Your task to perform on an android device: open sync settings in chrome Image 0: 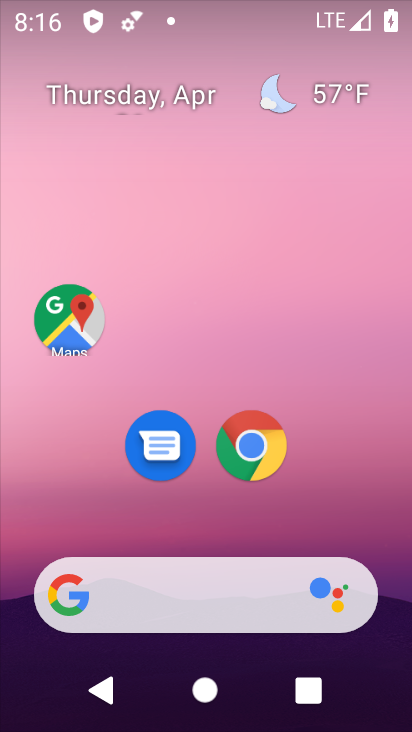
Step 0: click (252, 430)
Your task to perform on an android device: open sync settings in chrome Image 1: 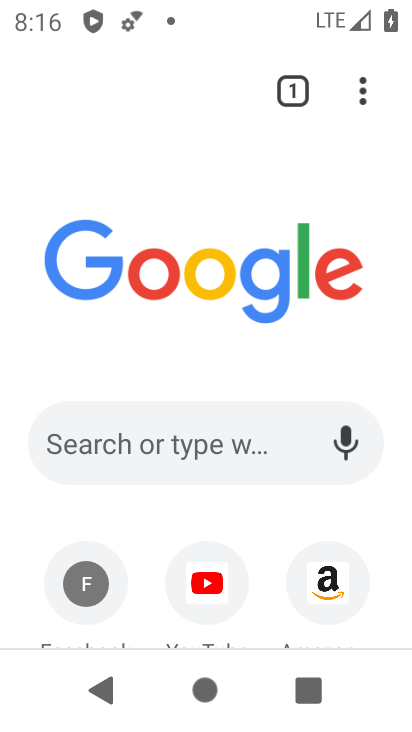
Step 1: click (367, 96)
Your task to perform on an android device: open sync settings in chrome Image 2: 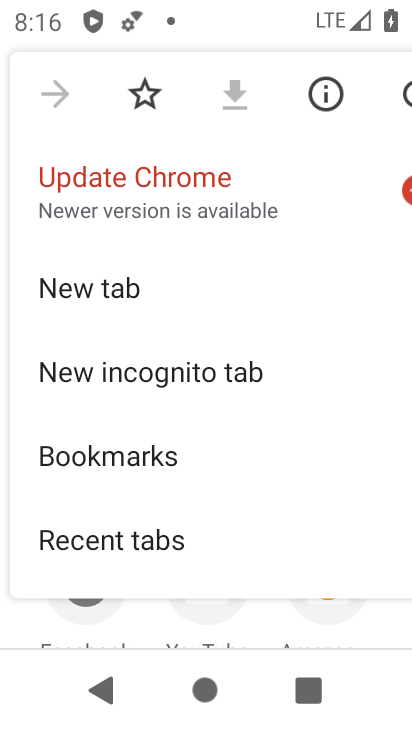
Step 2: drag from (256, 433) to (238, 46)
Your task to perform on an android device: open sync settings in chrome Image 3: 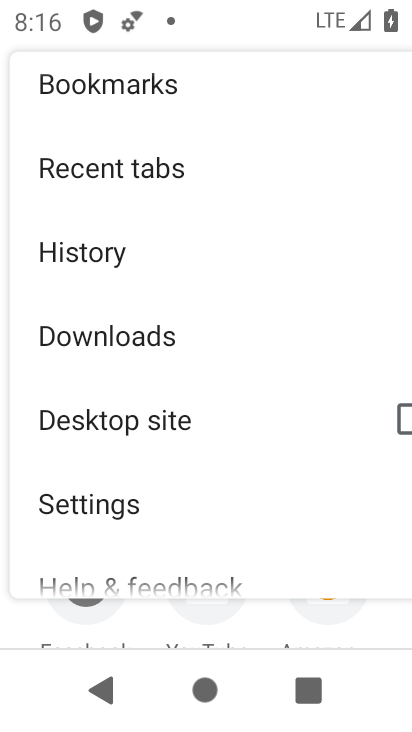
Step 3: click (94, 507)
Your task to perform on an android device: open sync settings in chrome Image 4: 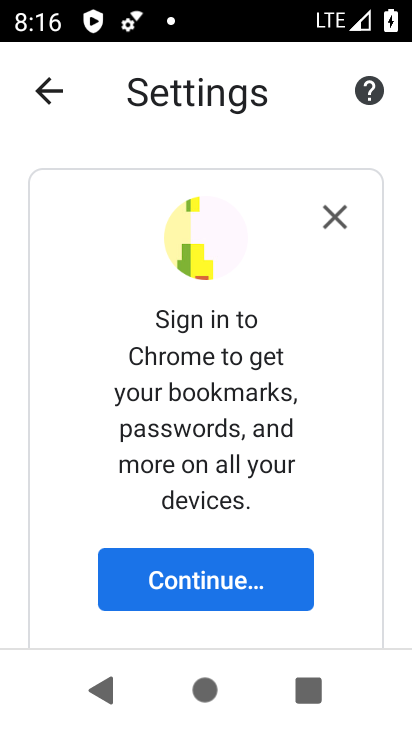
Step 4: drag from (220, 511) to (199, 192)
Your task to perform on an android device: open sync settings in chrome Image 5: 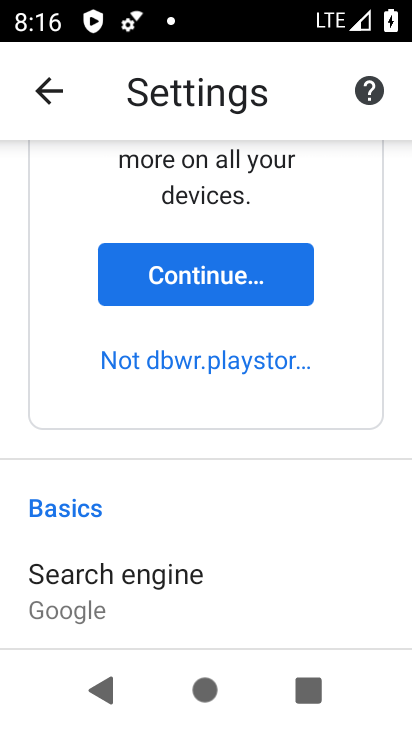
Step 5: click (174, 252)
Your task to perform on an android device: open sync settings in chrome Image 6: 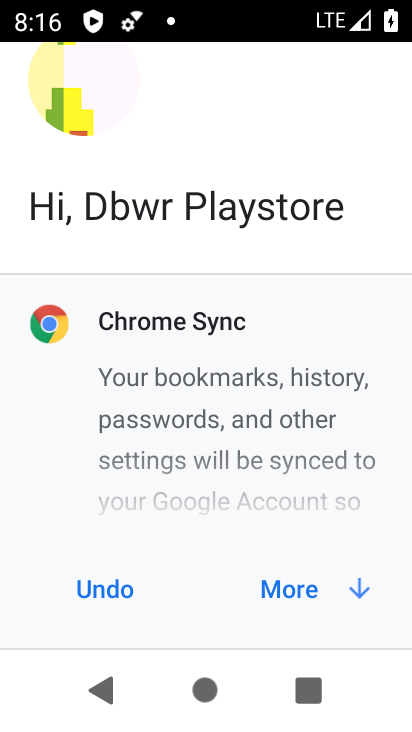
Step 6: click (309, 597)
Your task to perform on an android device: open sync settings in chrome Image 7: 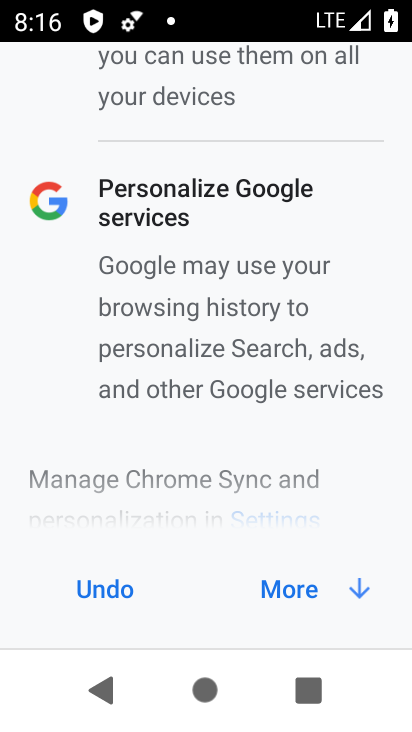
Step 7: click (327, 600)
Your task to perform on an android device: open sync settings in chrome Image 8: 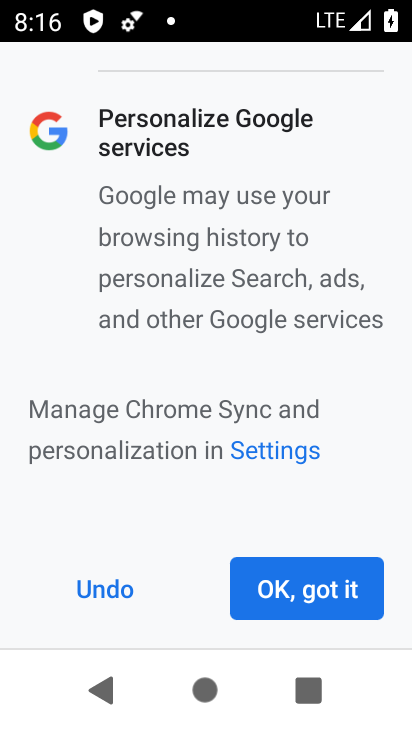
Step 8: click (327, 600)
Your task to perform on an android device: open sync settings in chrome Image 9: 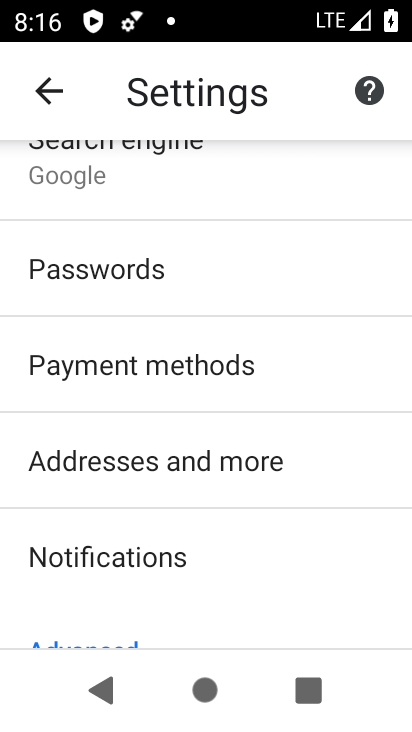
Step 9: drag from (219, 321) to (218, 646)
Your task to perform on an android device: open sync settings in chrome Image 10: 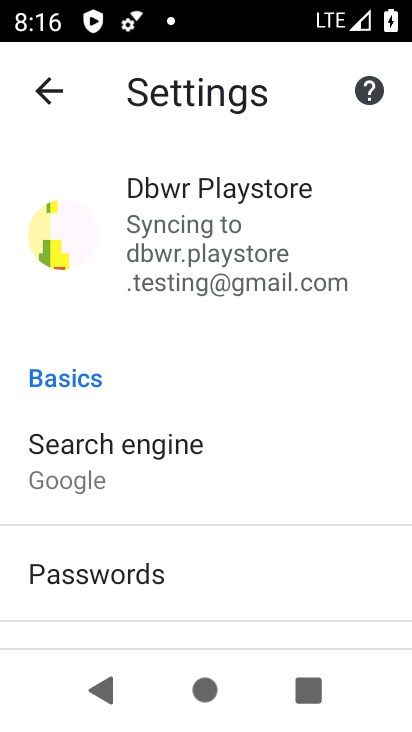
Step 10: click (187, 282)
Your task to perform on an android device: open sync settings in chrome Image 11: 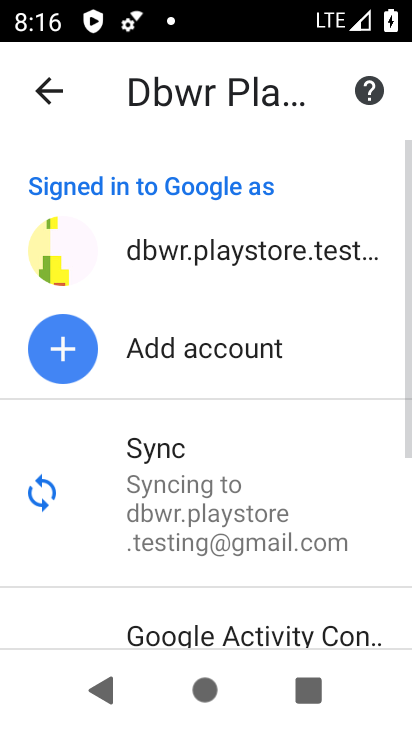
Step 11: click (142, 507)
Your task to perform on an android device: open sync settings in chrome Image 12: 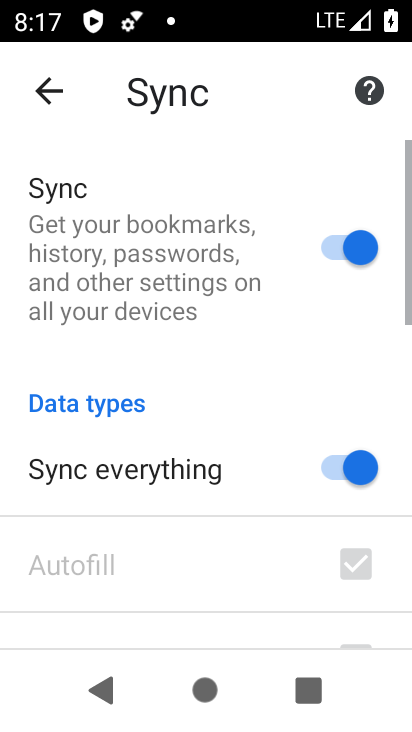
Step 12: task complete